Your task to perform on an android device: Go to settings Image 0: 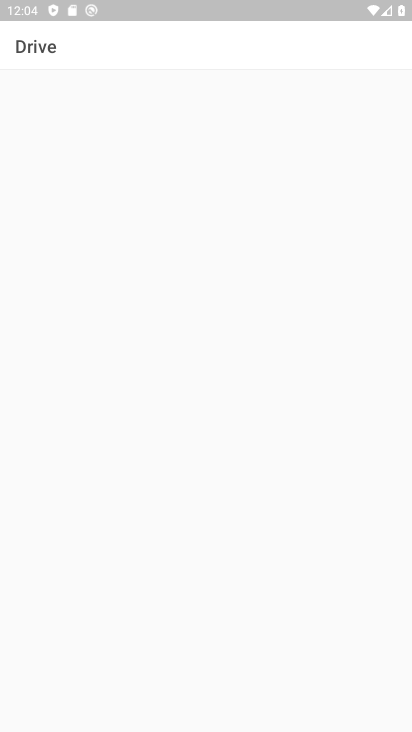
Step 0: press home button
Your task to perform on an android device: Go to settings Image 1: 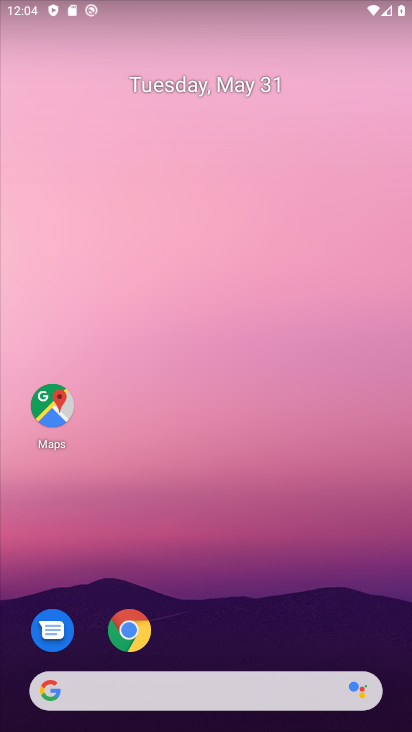
Step 1: drag from (245, 625) to (308, 96)
Your task to perform on an android device: Go to settings Image 2: 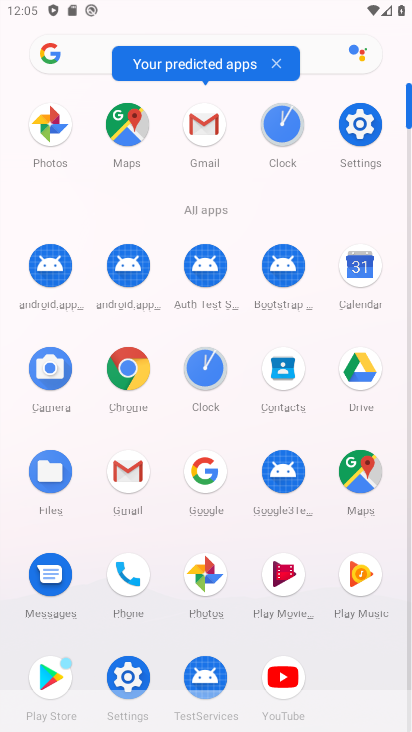
Step 2: click (364, 126)
Your task to perform on an android device: Go to settings Image 3: 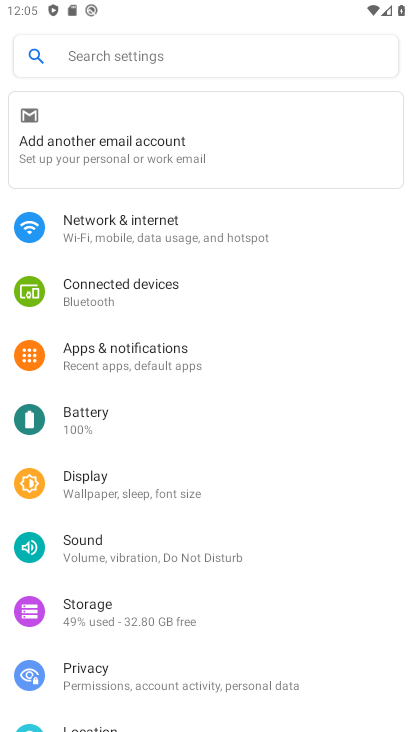
Step 3: task complete